Your task to perform on an android device: turn on wifi Image 0: 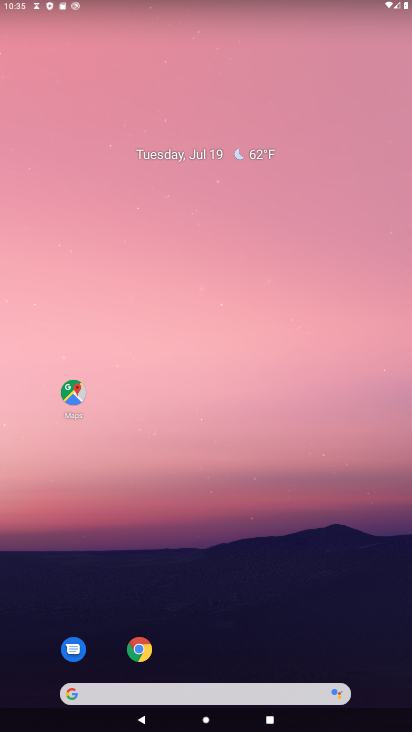
Step 0: drag from (262, 4) to (233, 452)
Your task to perform on an android device: turn on wifi Image 1: 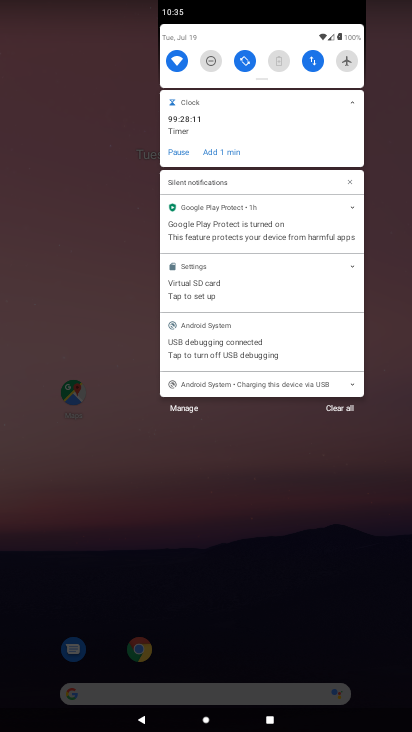
Step 1: drag from (284, 308) to (318, 455)
Your task to perform on an android device: turn on wifi Image 2: 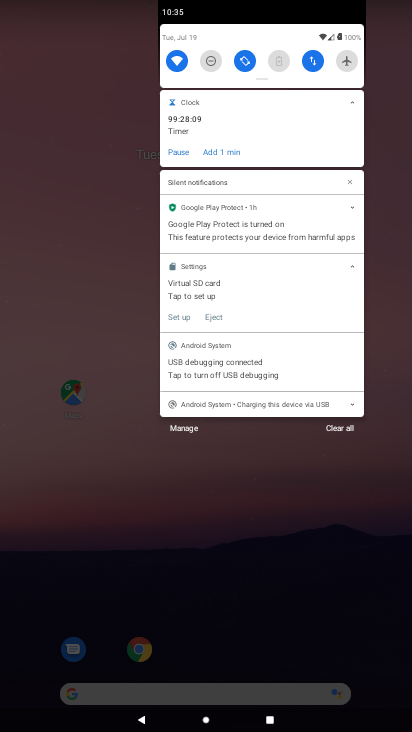
Step 2: drag from (246, 76) to (203, 463)
Your task to perform on an android device: turn on wifi Image 3: 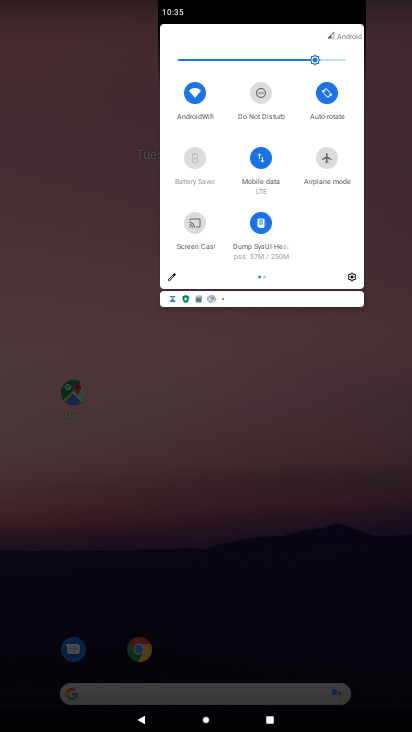
Step 3: click (274, 425)
Your task to perform on an android device: turn on wifi Image 4: 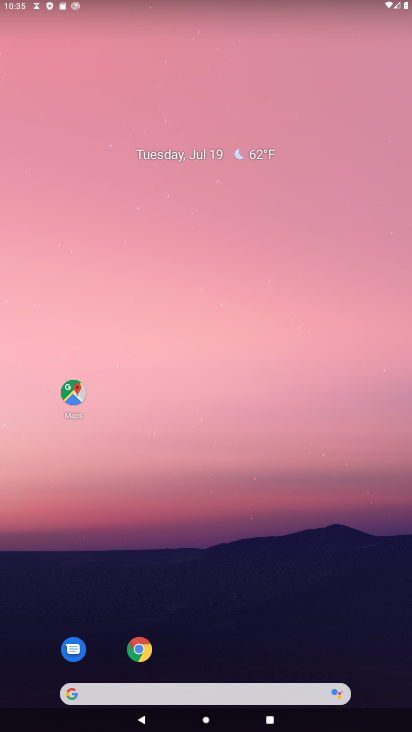
Step 4: drag from (173, 642) to (369, 5)
Your task to perform on an android device: turn on wifi Image 5: 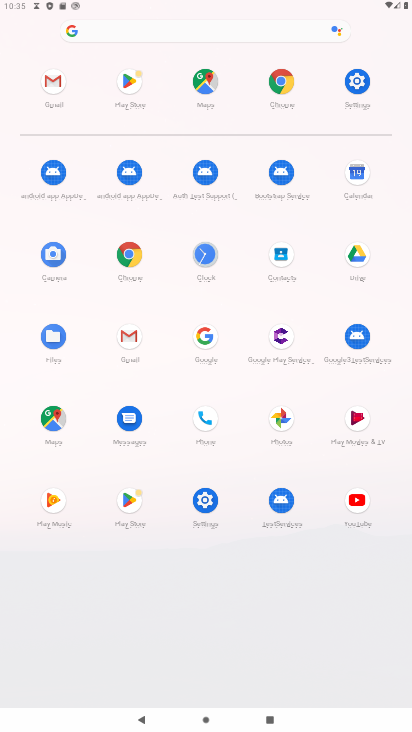
Step 5: click (360, 79)
Your task to perform on an android device: turn on wifi Image 6: 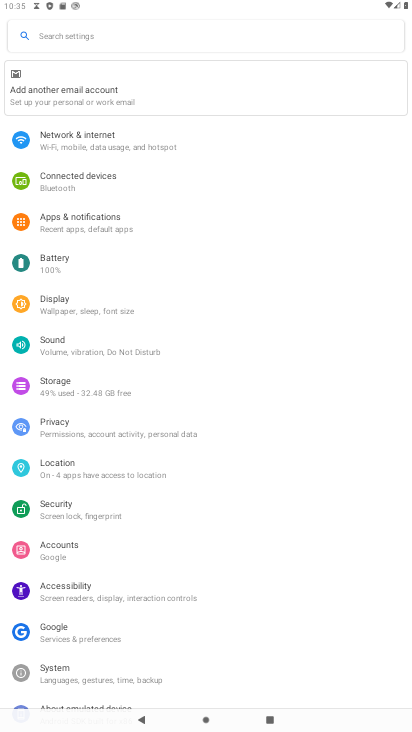
Step 6: click (207, 147)
Your task to perform on an android device: turn on wifi Image 7: 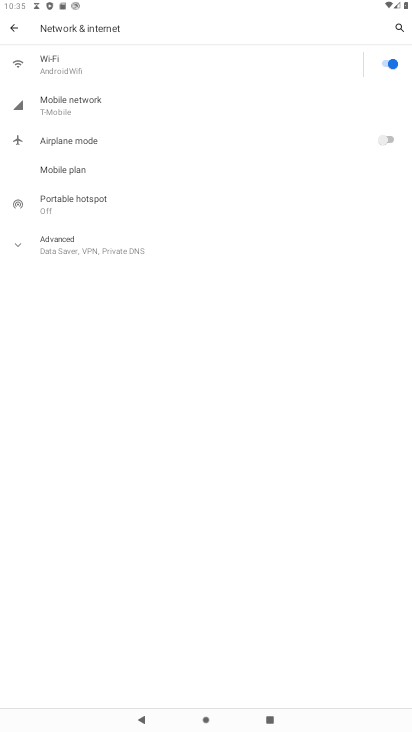
Step 7: task complete